Your task to perform on an android device: Open sound settings Image 0: 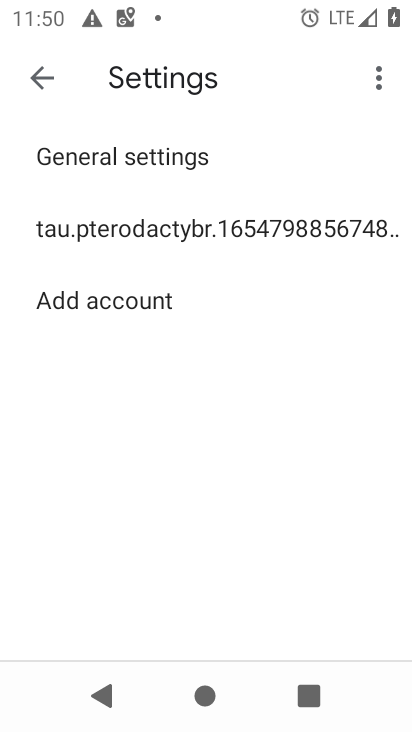
Step 0: press back button
Your task to perform on an android device: Open sound settings Image 1: 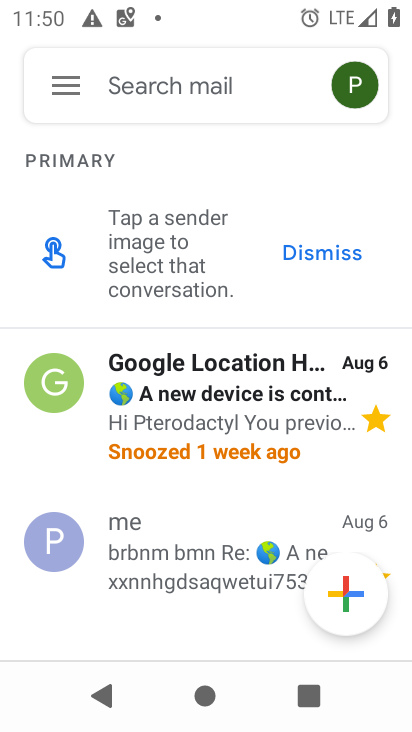
Step 1: press back button
Your task to perform on an android device: Open sound settings Image 2: 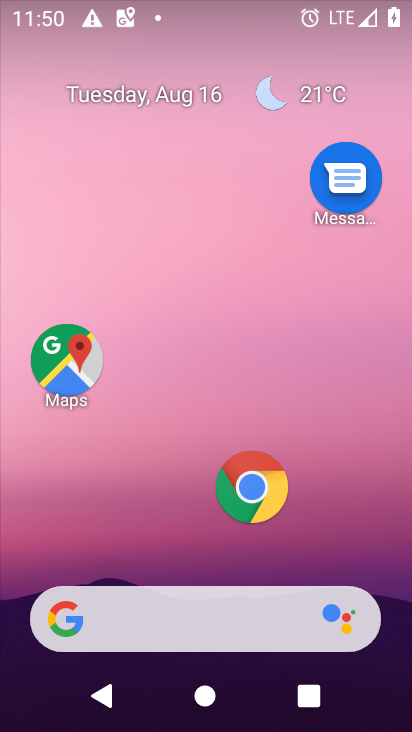
Step 2: drag from (131, 547) to (231, 47)
Your task to perform on an android device: Open sound settings Image 3: 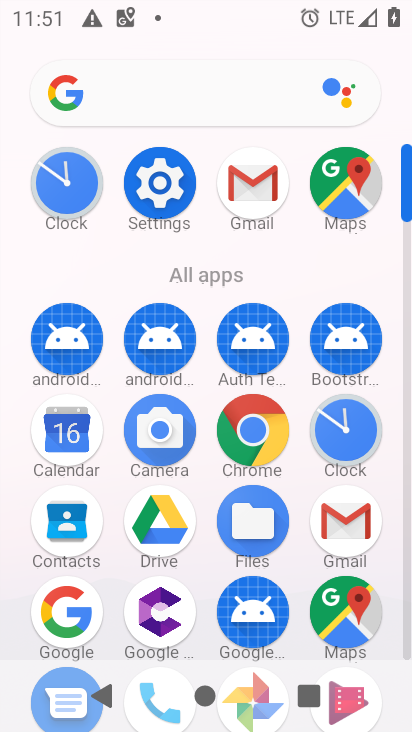
Step 3: click (147, 182)
Your task to perform on an android device: Open sound settings Image 4: 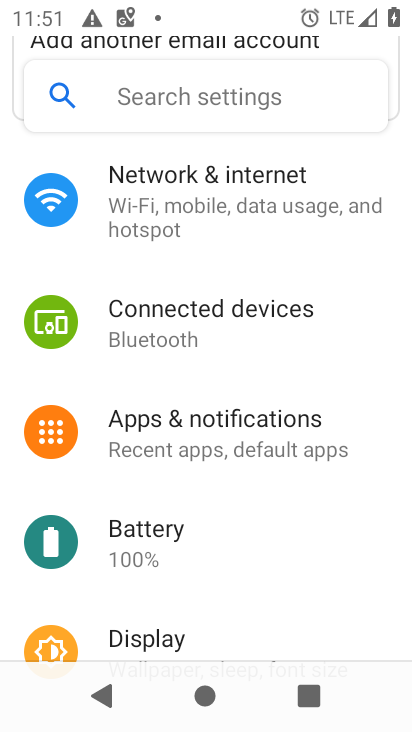
Step 4: drag from (183, 585) to (254, 169)
Your task to perform on an android device: Open sound settings Image 5: 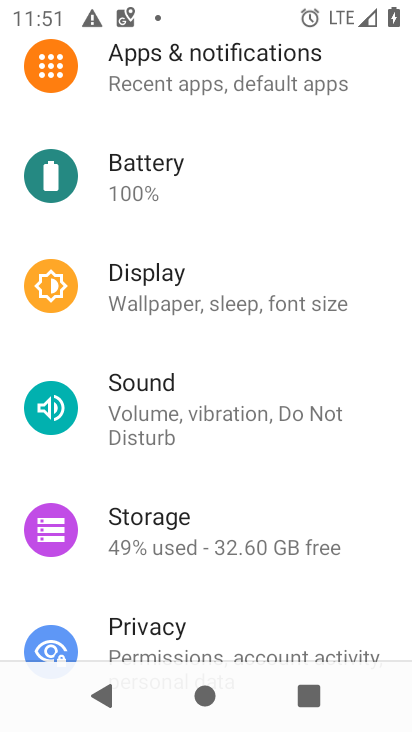
Step 5: click (146, 389)
Your task to perform on an android device: Open sound settings Image 6: 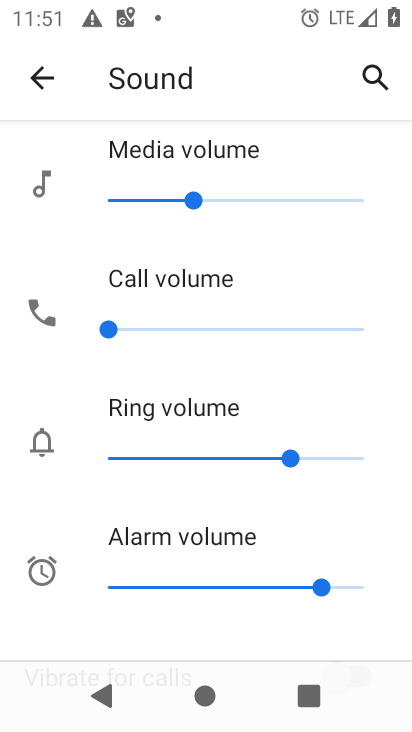
Step 6: task complete